Your task to perform on an android device: Show me popular videos on Youtube Image 0: 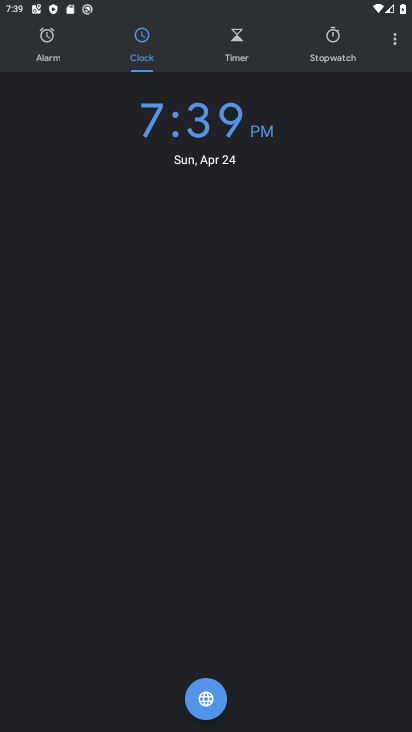
Step 0: press home button
Your task to perform on an android device: Show me popular videos on Youtube Image 1: 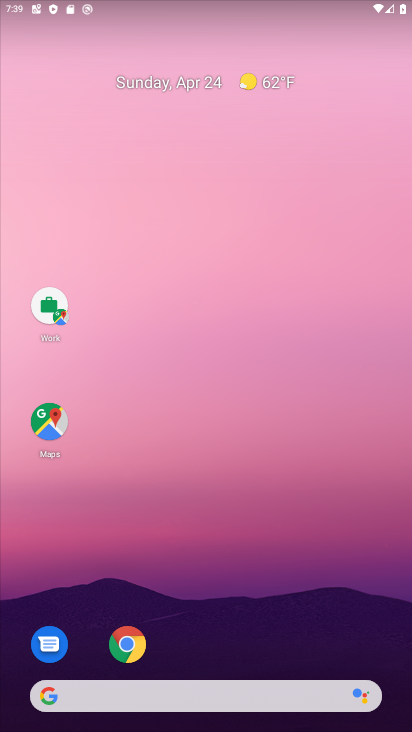
Step 1: drag from (225, 636) to (285, 30)
Your task to perform on an android device: Show me popular videos on Youtube Image 2: 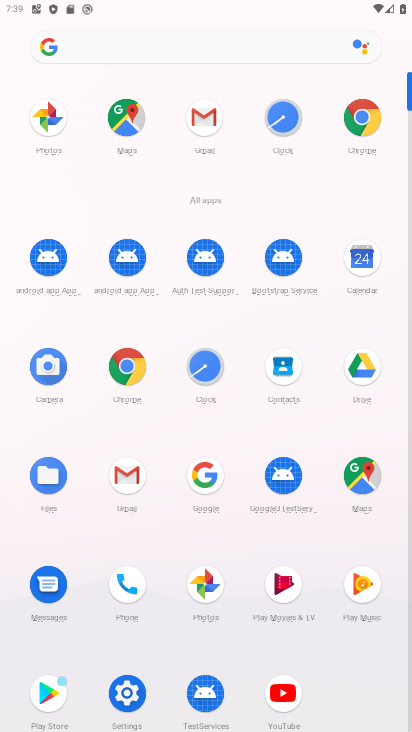
Step 2: click (285, 691)
Your task to perform on an android device: Show me popular videos on Youtube Image 3: 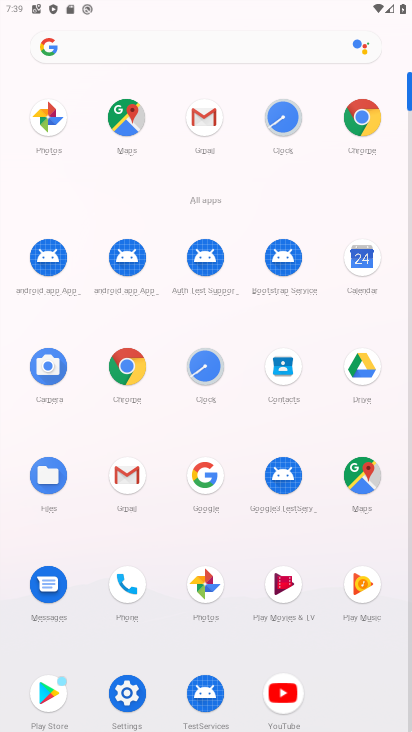
Step 3: click (285, 691)
Your task to perform on an android device: Show me popular videos on Youtube Image 4: 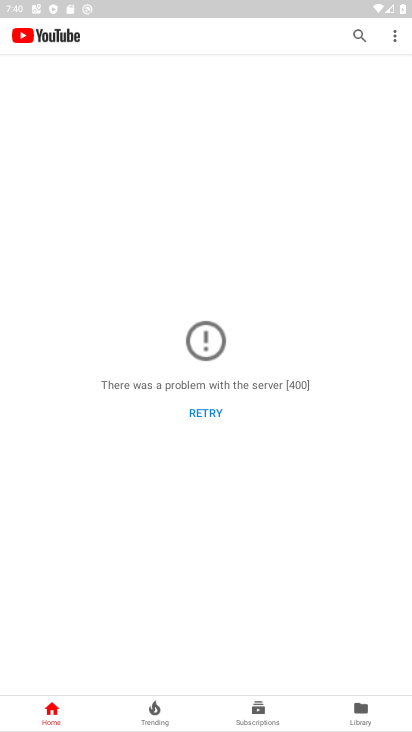
Step 4: task complete